Your task to perform on an android device: turn on improve location accuracy Image 0: 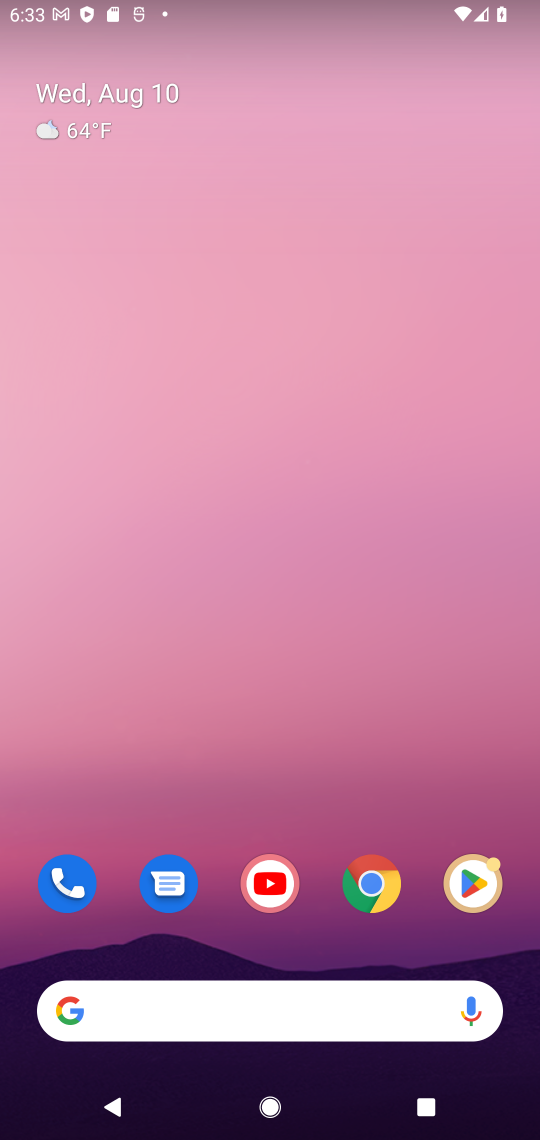
Step 0: drag from (292, 819) to (455, 60)
Your task to perform on an android device: turn on improve location accuracy Image 1: 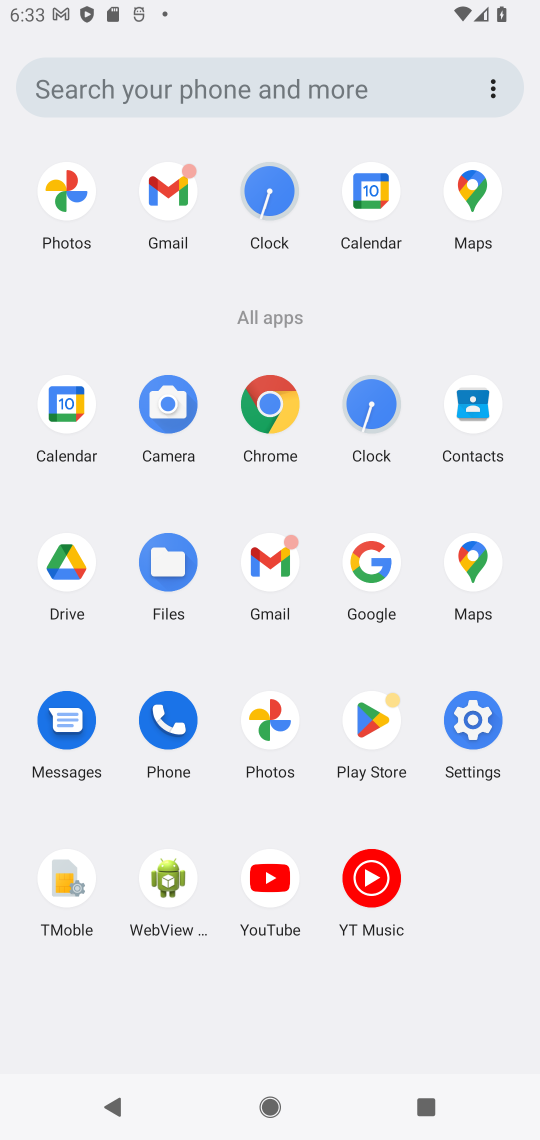
Step 1: click (464, 710)
Your task to perform on an android device: turn on improve location accuracy Image 2: 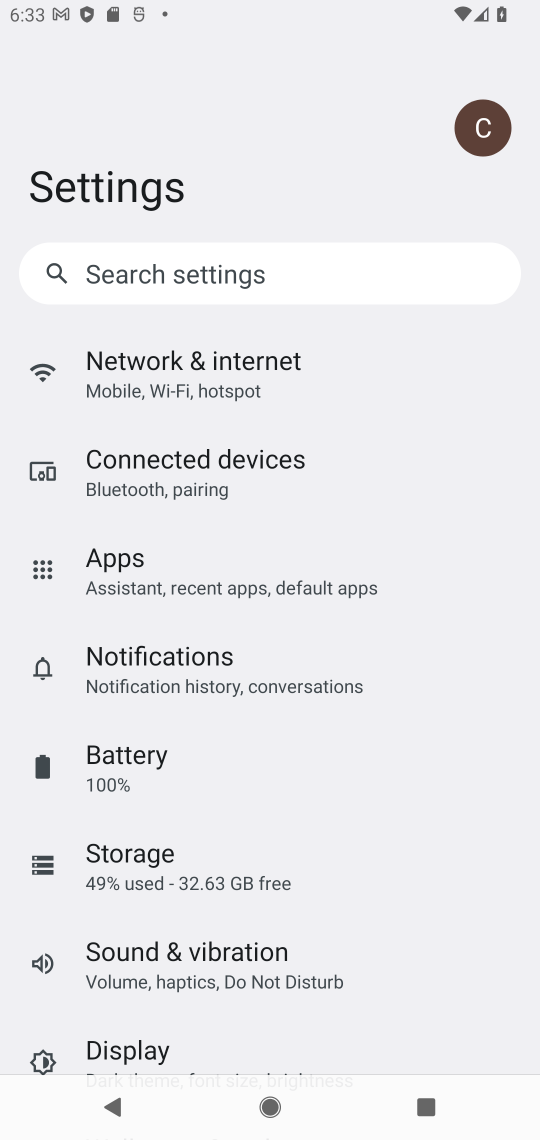
Step 2: drag from (241, 911) to (288, 391)
Your task to perform on an android device: turn on improve location accuracy Image 3: 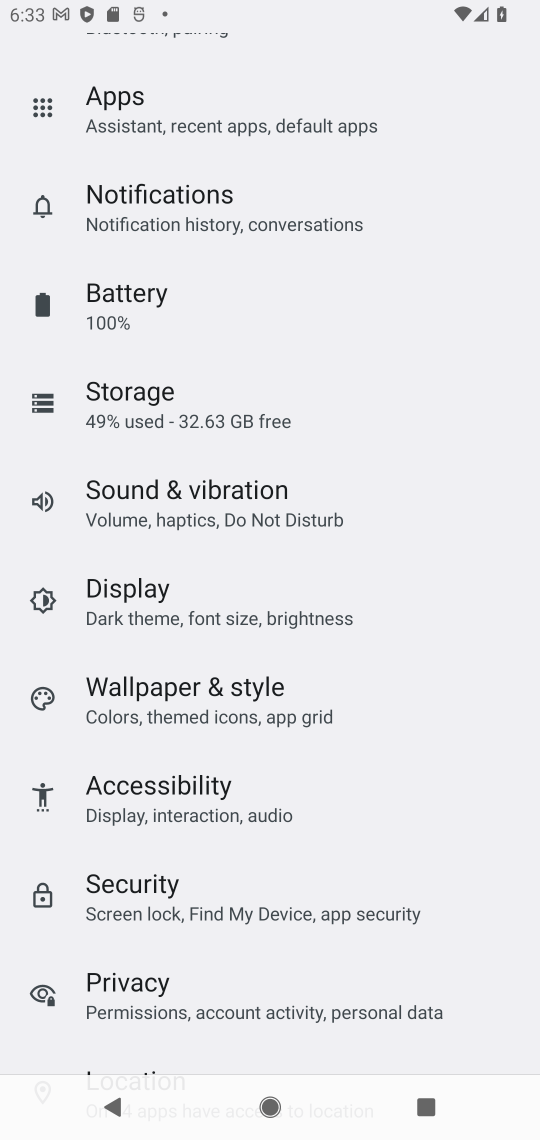
Step 3: drag from (216, 892) to (270, 442)
Your task to perform on an android device: turn on improve location accuracy Image 4: 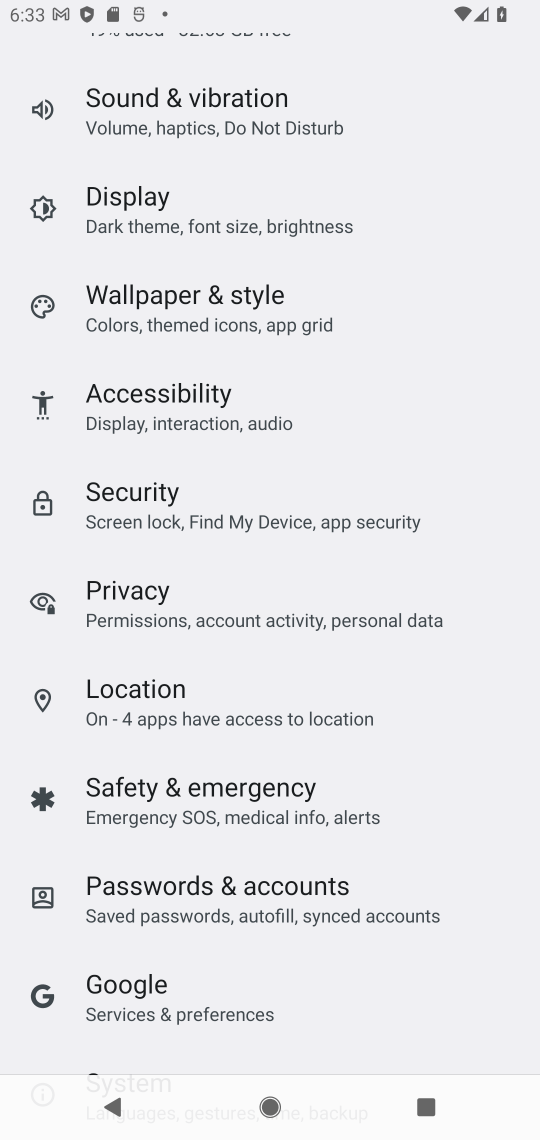
Step 4: drag from (206, 949) to (290, 582)
Your task to perform on an android device: turn on improve location accuracy Image 5: 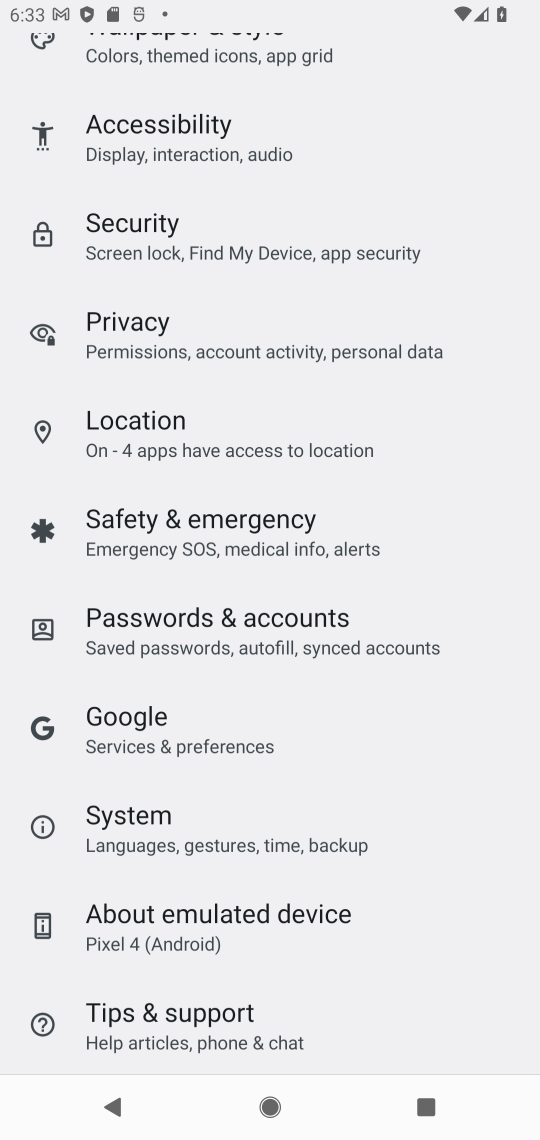
Step 5: click (190, 441)
Your task to perform on an android device: turn on improve location accuracy Image 6: 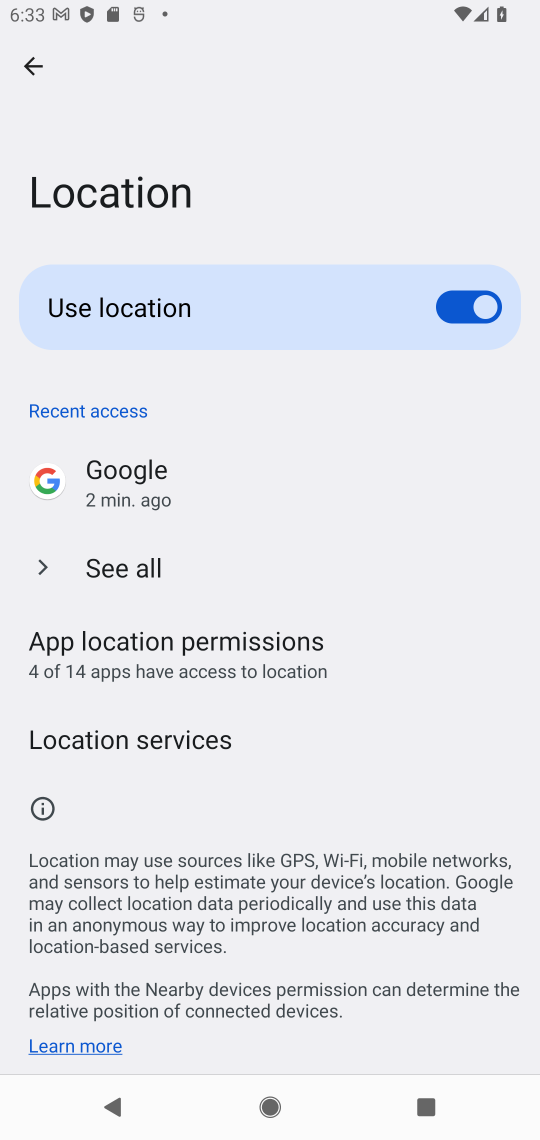
Step 6: drag from (243, 903) to (295, 460)
Your task to perform on an android device: turn on improve location accuracy Image 7: 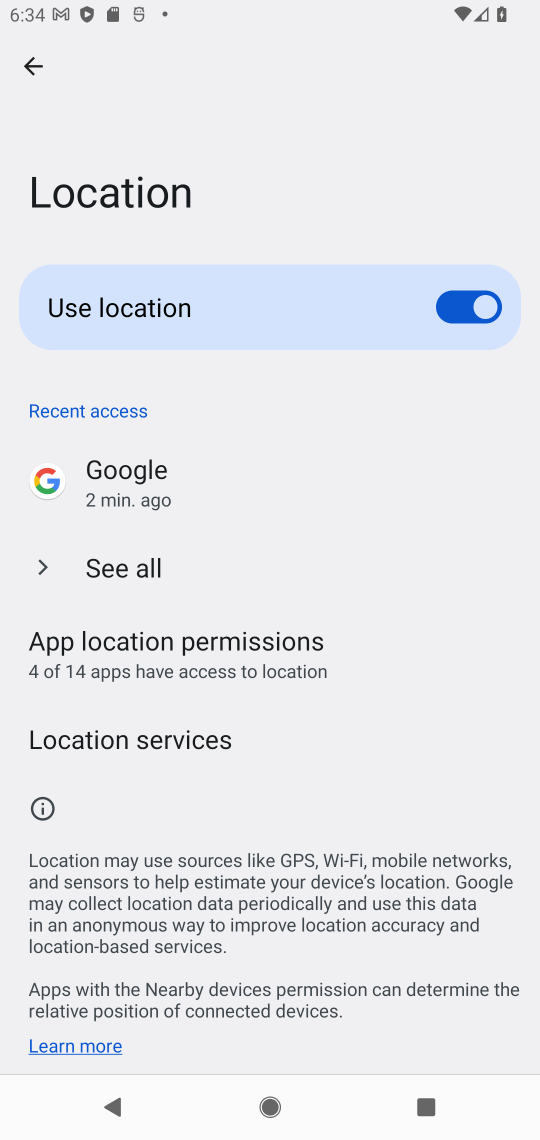
Step 7: click (152, 661)
Your task to perform on an android device: turn on improve location accuracy Image 8: 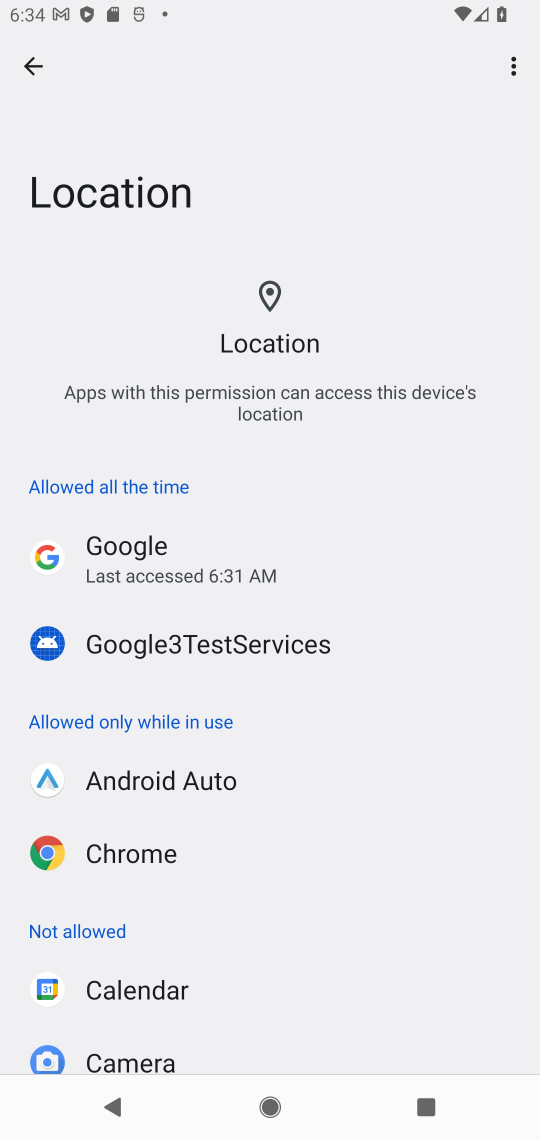
Step 8: click (28, 56)
Your task to perform on an android device: turn on improve location accuracy Image 9: 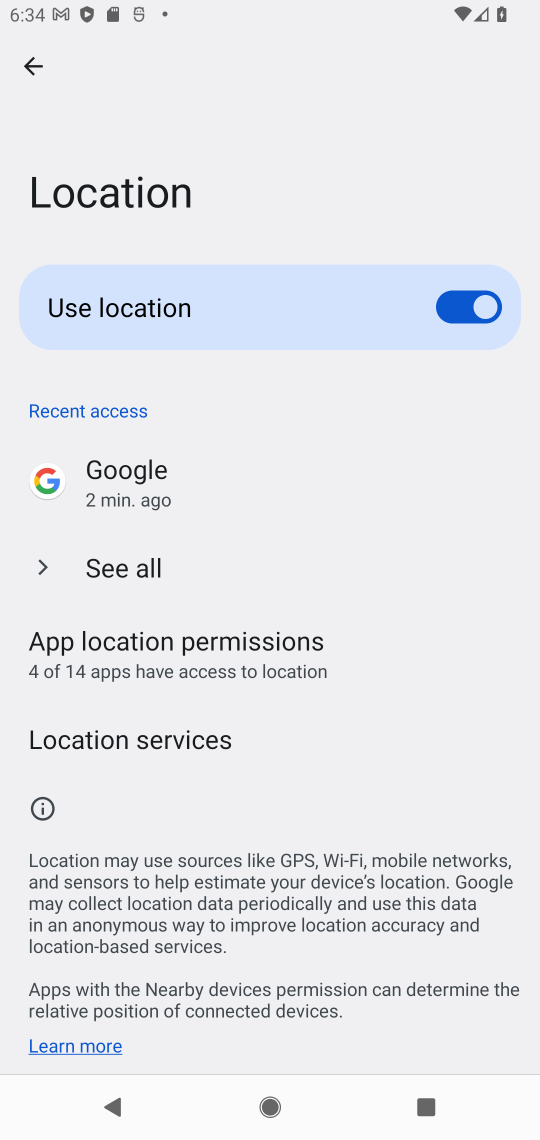
Step 9: click (135, 736)
Your task to perform on an android device: turn on improve location accuracy Image 10: 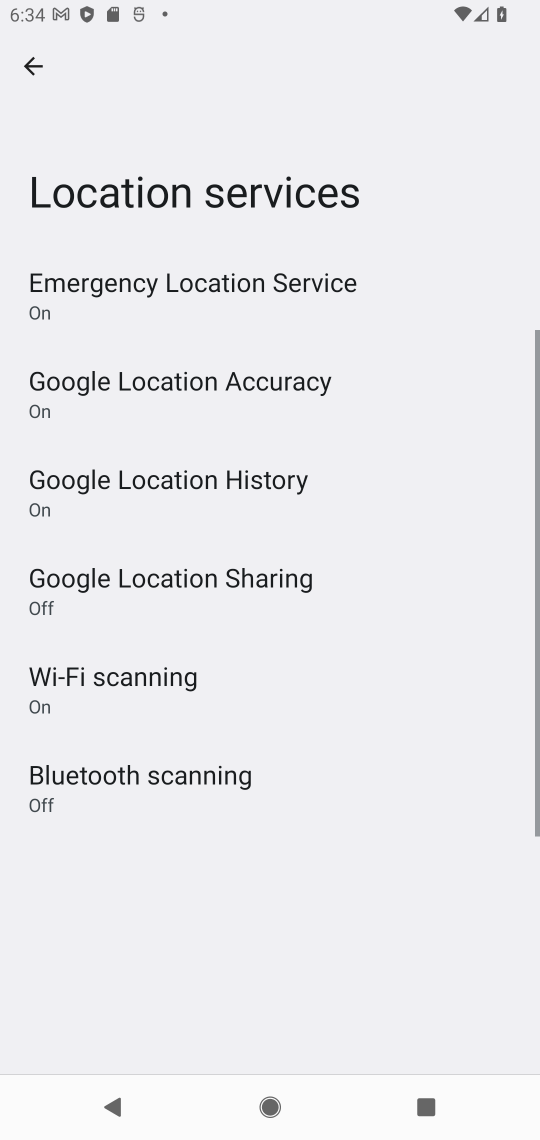
Step 10: click (238, 392)
Your task to perform on an android device: turn on improve location accuracy Image 11: 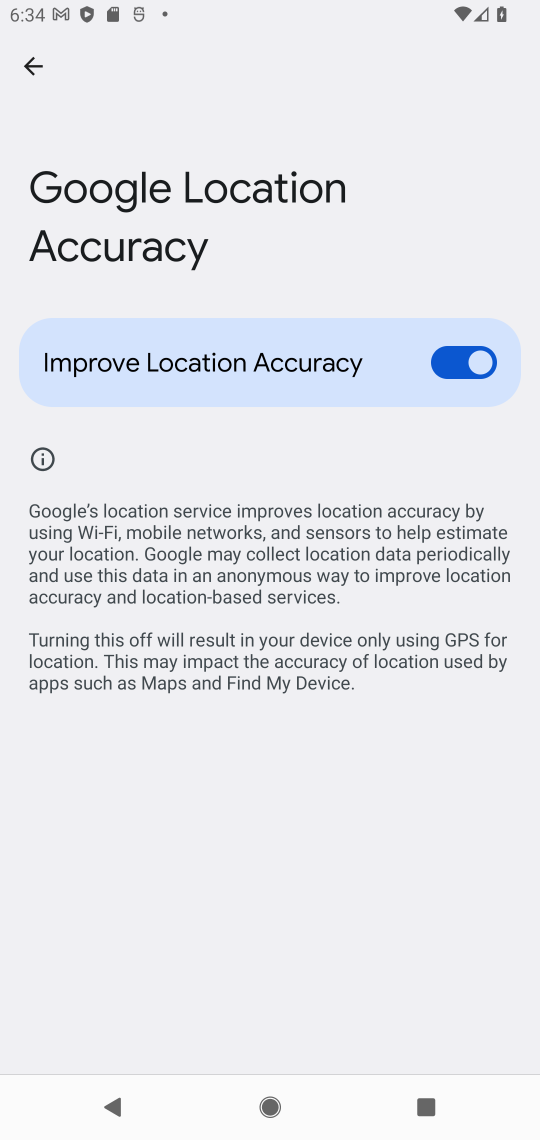
Step 11: task complete